Your task to perform on an android device: change alarm snooze length Image 0: 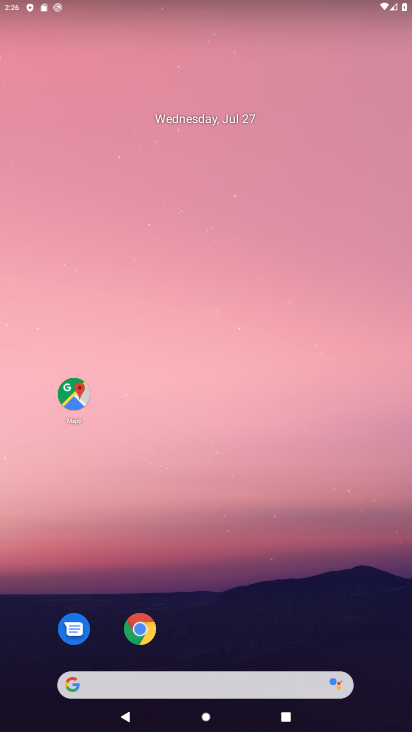
Step 0: drag from (239, 637) to (234, 162)
Your task to perform on an android device: change alarm snooze length Image 1: 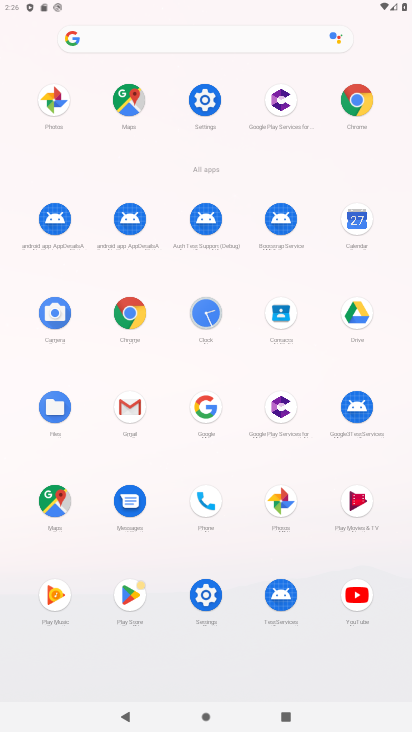
Step 1: click (192, 327)
Your task to perform on an android device: change alarm snooze length Image 2: 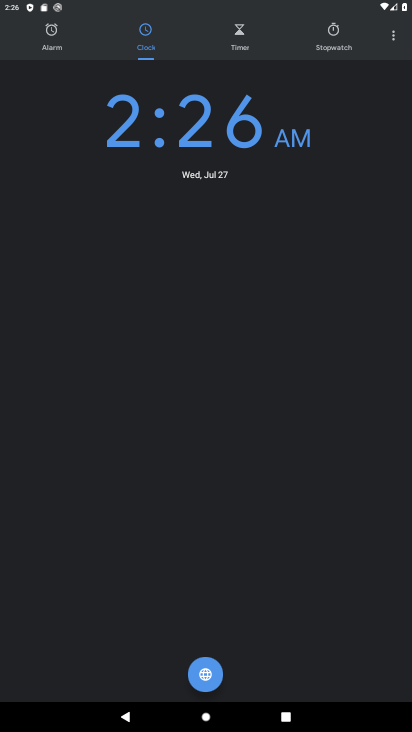
Step 2: click (401, 47)
Your task to perform on an android device: change alarm snooze length Image 3: 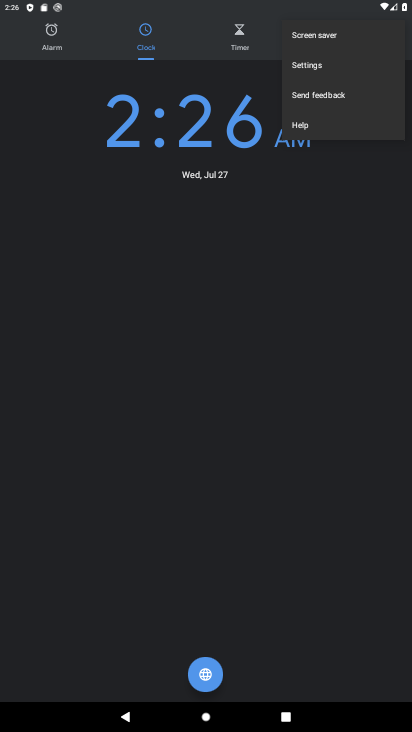
Step 3: click (332, 75)
Your task to perform on an android device: change alarm snooze length Image 4: 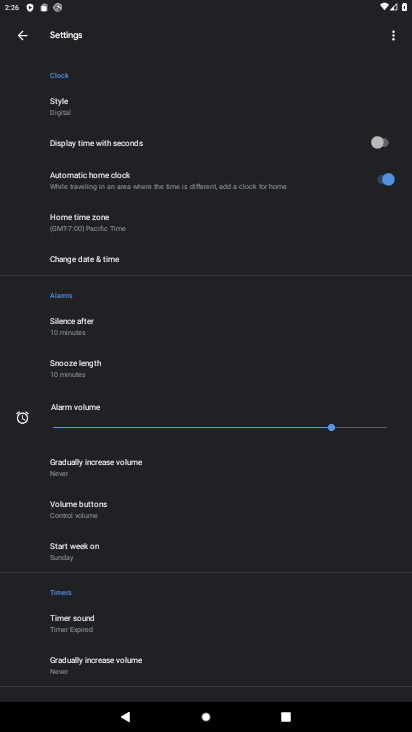
Step 4: click (128, 365)
Your task to perform on an android device: change alarm snooze length Image 5: 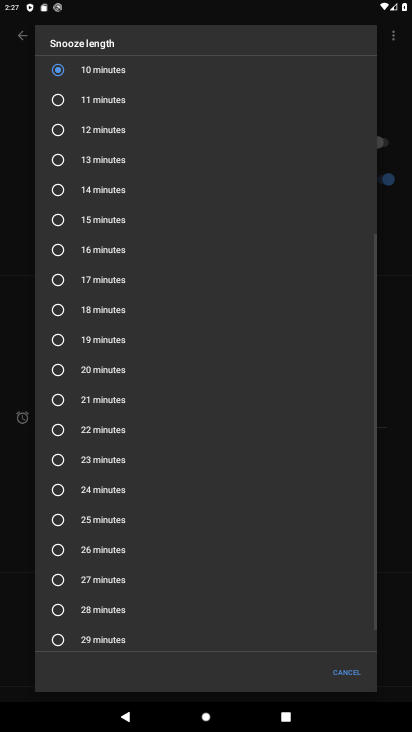
Step 5: click (131, 588)
Your task to perform on an android device: change alarm snooze length Image 6: 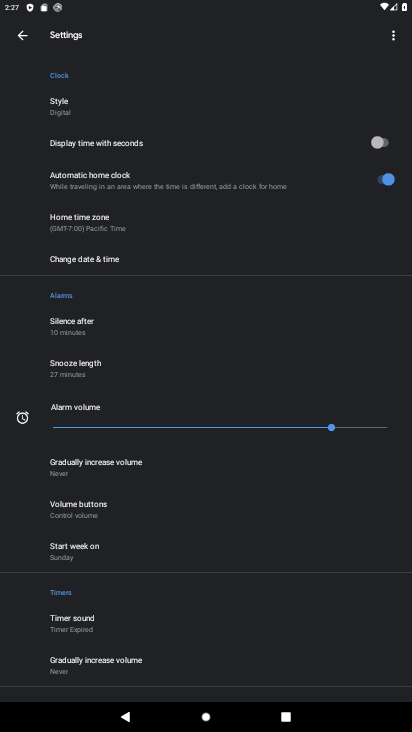
Step 6: task complete